Your task to perform on an android device: add a contact in the contacts app Image 0: 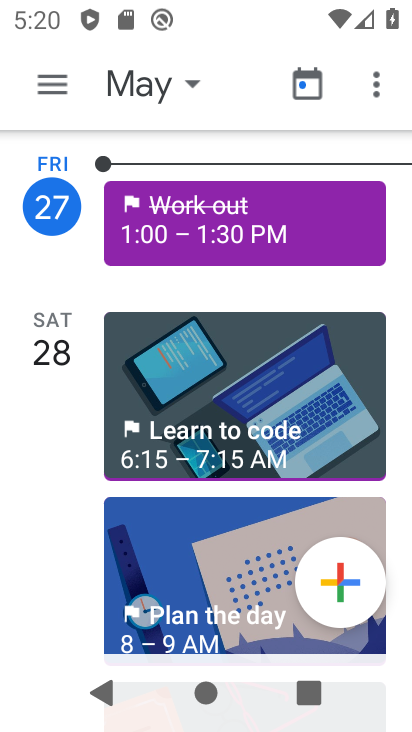
Step 0: press back button
Your task to perform on an android device: add a contact in the contacts app Image 1: 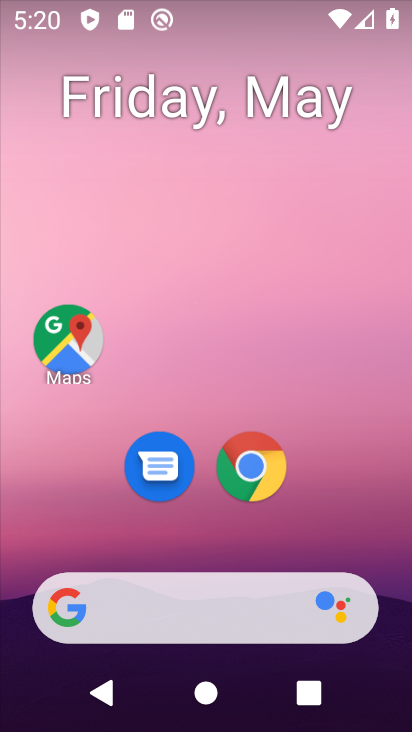
Step 1: drag from (313, 422) to (233, 9)
Your task to perform on an android device: add a contact in the contacts app Image 2: 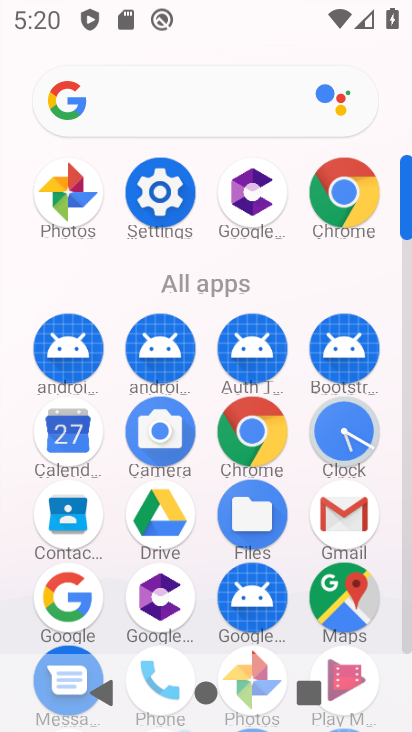
Step 2: drag from (0, 572) to (23, 231)
Your task to perform on an android device: add a contact in the contacts app Image 3: 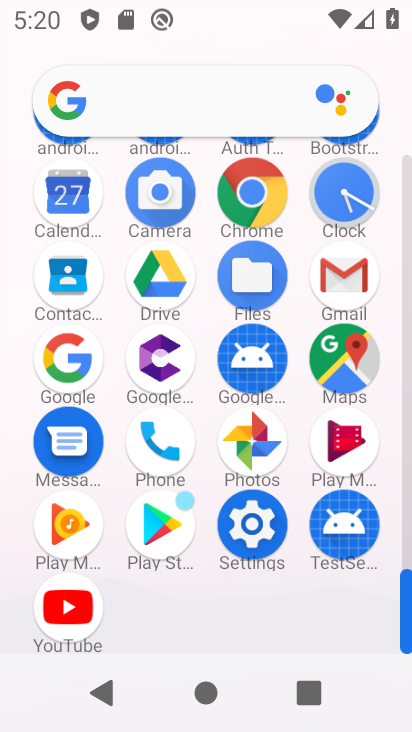
Step 3: click (62, 268)
Your task to perform on an android device: add a contact in the contacts app Image 4: 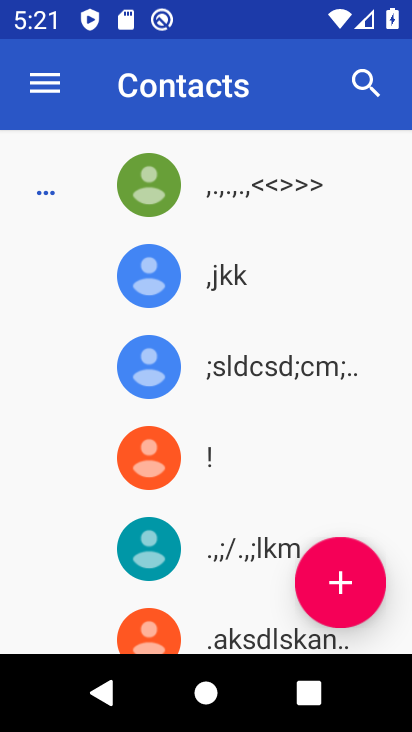
Step 4: click (341, 574)
Your task to perform on an android device: add a contact in the contacts app Image 5: 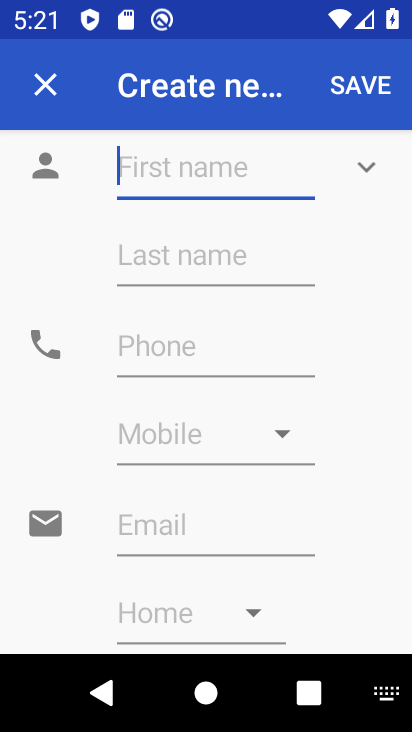
Step 5: type "CVBt"
Your task to perform on an android device: add a contact in the contacts app Image 6: 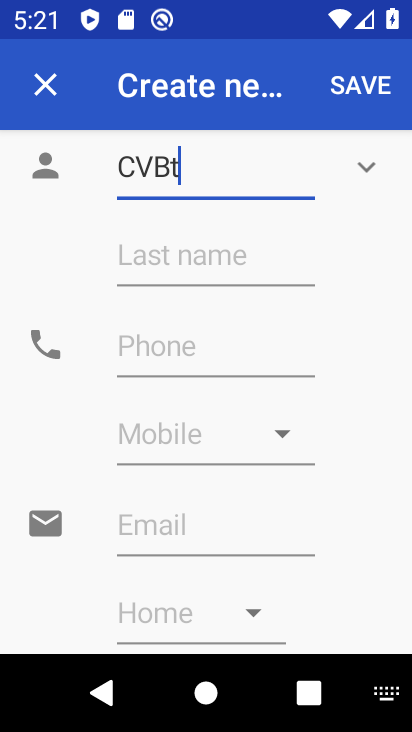
Step 6: type ""
Your task to perform on an android device: add a contact in the contacts app Image 7: 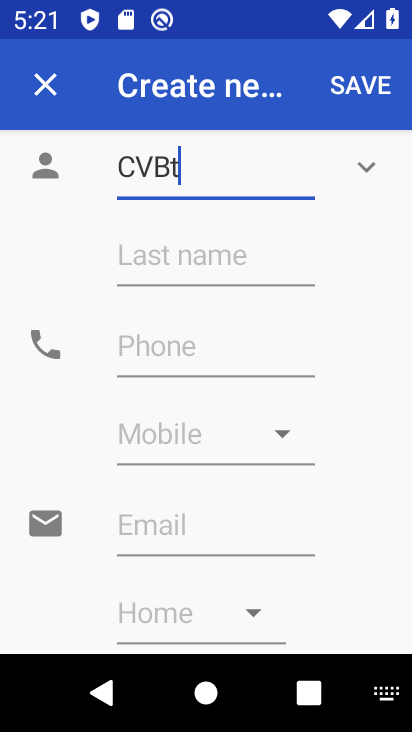
Step 7: click (160, 346)
Your task to perform on an android device: add a contact in the contacts app Image 8: 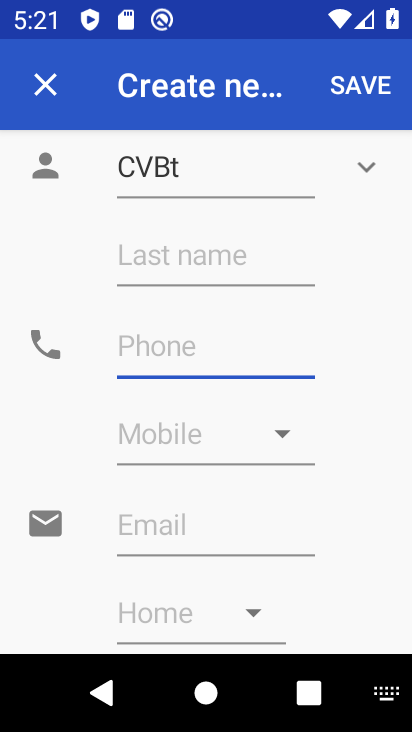
Step 8: type "456789"
Your task to perform on an android device: add a contact in the contacts app Image 9: 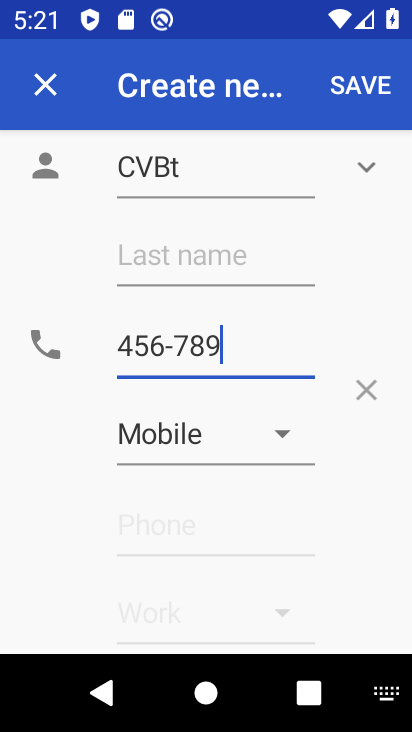
Step 9: type ""
Your task to perform on an android device: add a contact in the contacts app Image 10: 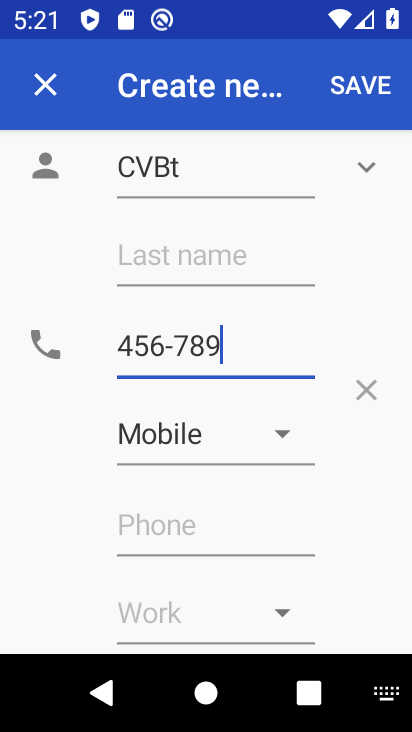
Step 10: click (343, 79)
Your task to perform on an android device: add a contact in the contacts app Image 11: 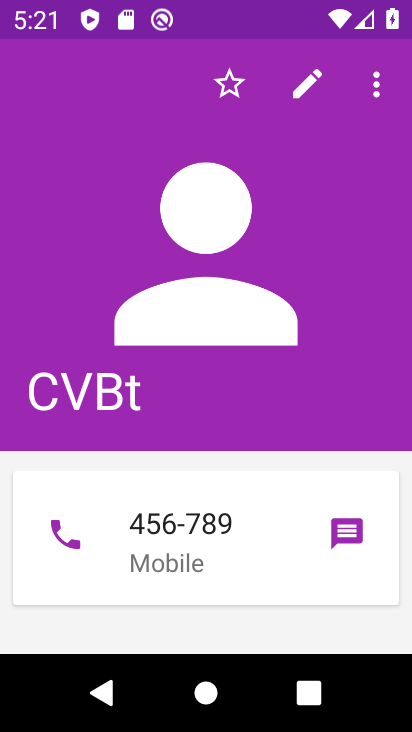
Step 11: task complete